Your task to perform on an android device: Show me popular games on the Play Store Image 0: 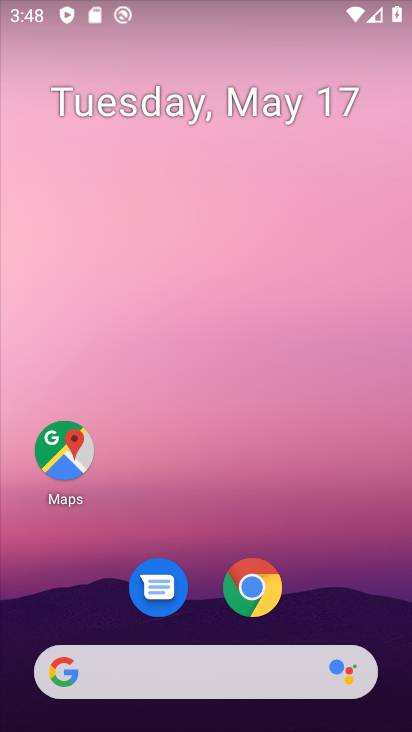
Step 0: drag from (302, 704) to (249, 358)
Your task to perform on an android device: Show me popular games on the Play Store Image 1: 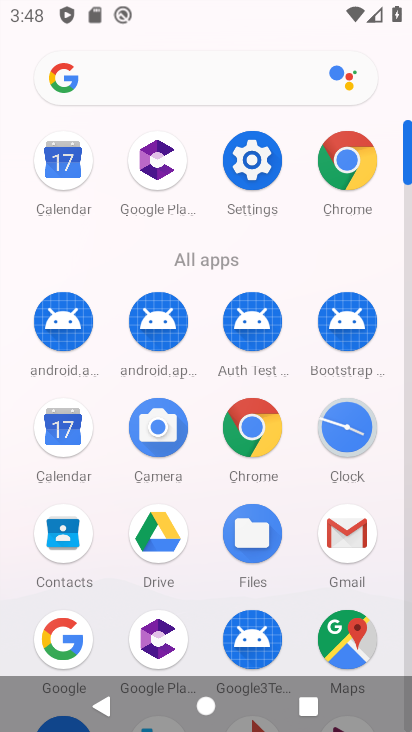
Step 1: drag from (114, 576) to (101, 389)
Your task to perform on an android device: Show me popular games on the Play Store Image 2: 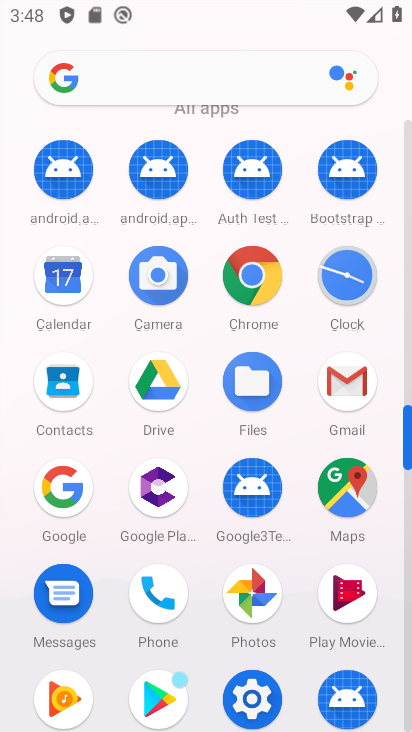
Step 2: click (147, 683)
Your task to perform on an android device: Show me popular games on the Play Store Image 3: 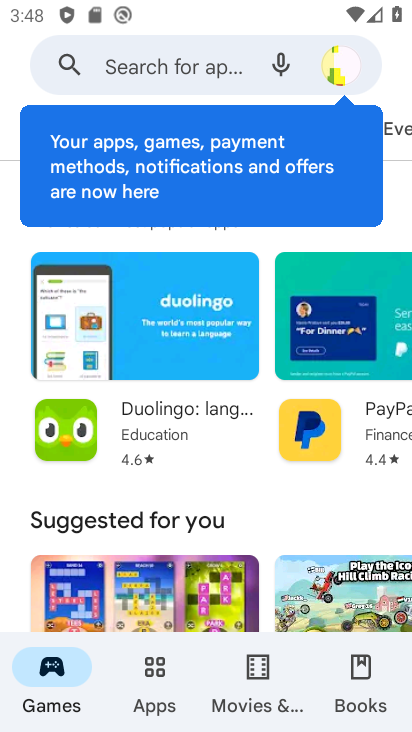
Step 3: click (196, 72)
Your task to perform on an android device: Show me popular games on the Play Store Image 4: 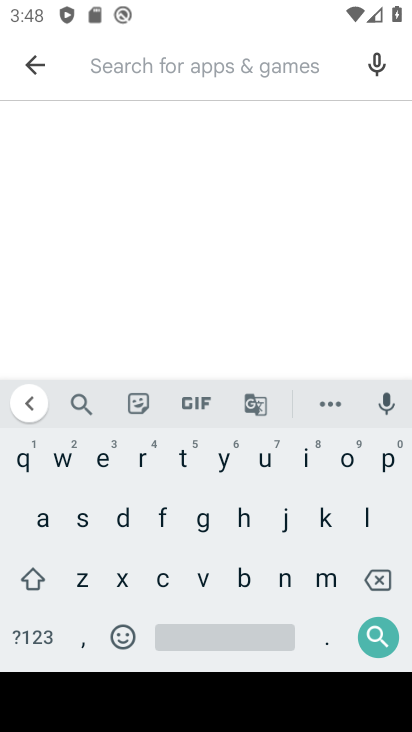
Step 4: click (393, 456)
Your task to perform on an android device: Show me popular games on the Play Store Image 5: 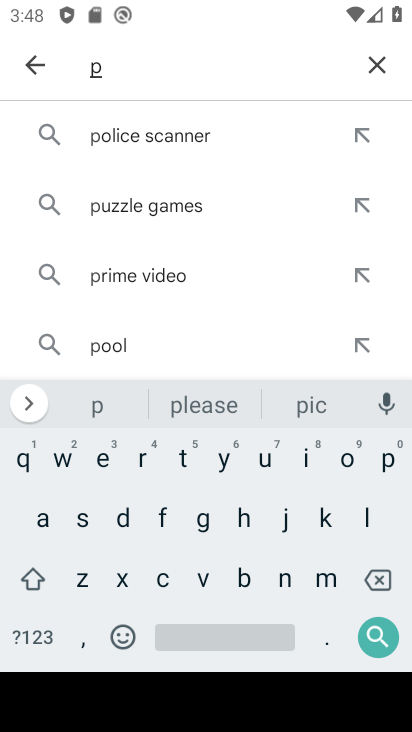
Step 5: click (348, 460)
Your task to perform on an android device: Show me popular games on the Play Store Image 6: 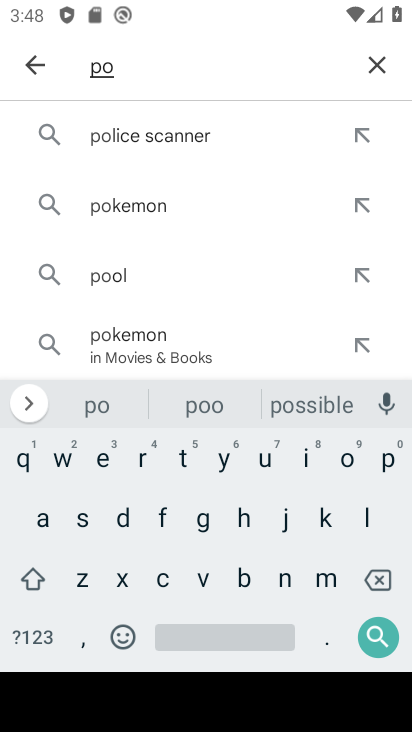
Step 6: click (398, 462)
Your task to perform on an android device: Show me popular games on the Play Store Image 7: 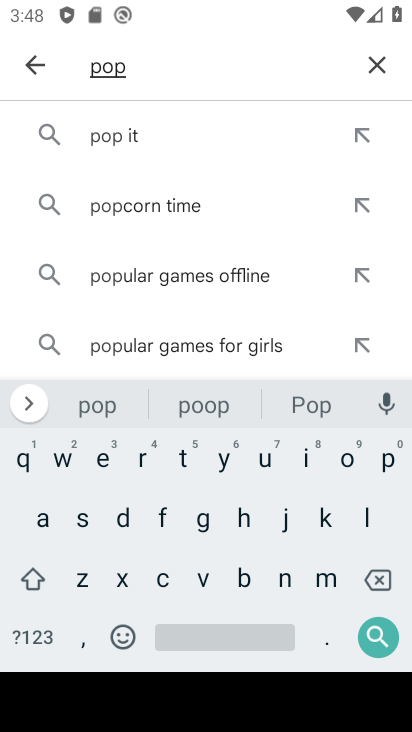
Step 7: click (263, 452)
Your task to perform on an android device: Show me popular games on the Play Store Image 8: 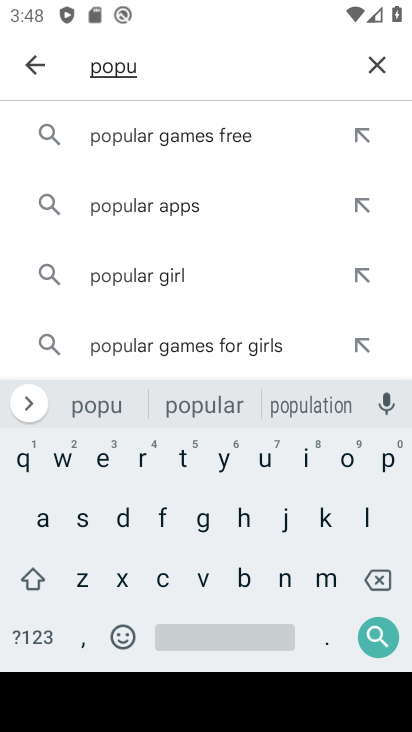
Step 8: click (211, 409)
Your task to perform on an android device: Show me popular games on the Play Store Image 9: 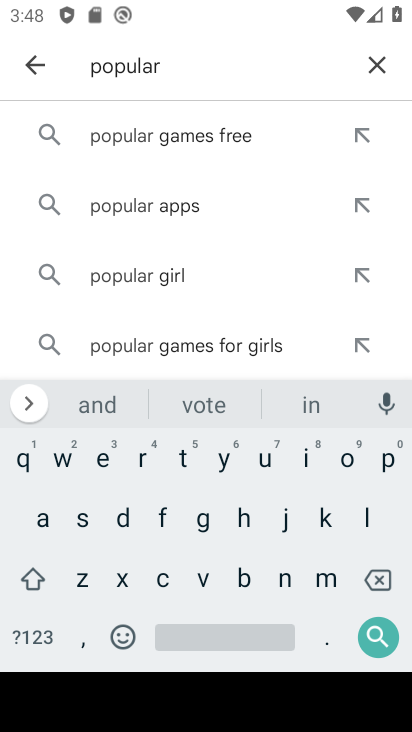
Step 9: click (192, 516)
Your task to perform on an android device: Show me popular games on the Play Store Image 10: 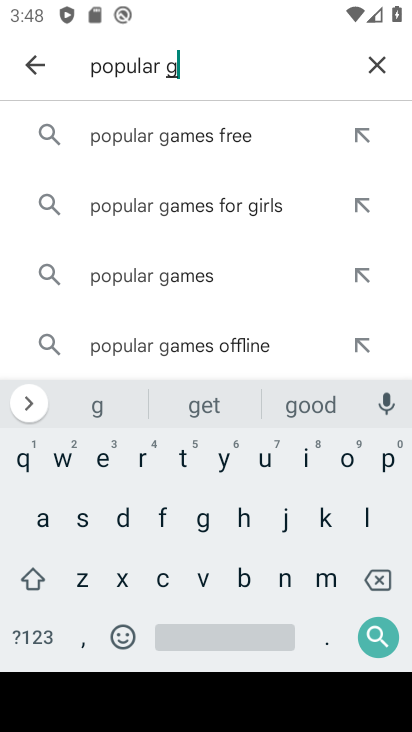
Step 10: click (180, 286)
Your task to perform on an android device: Show me popular games on the Play Store Image 11: 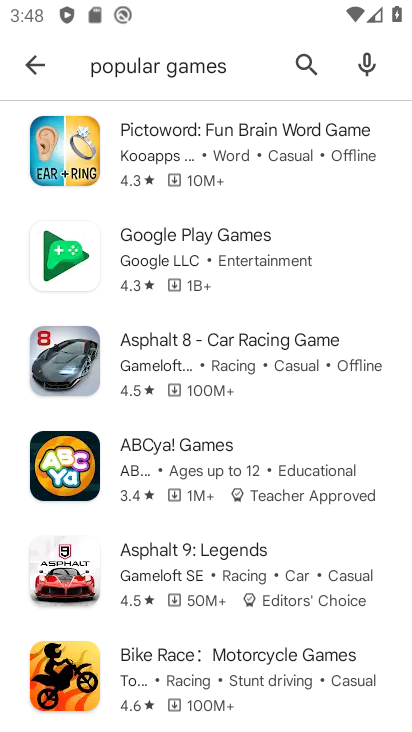
Step 11: task complete